Your task to perform on an android device: Open Amazon Image 0: 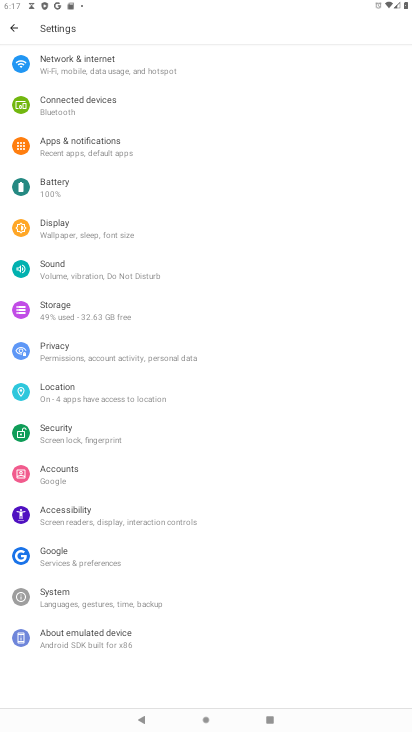
Step 0: press home button
Your task to perform on an android device: Open Amazon Image 1: 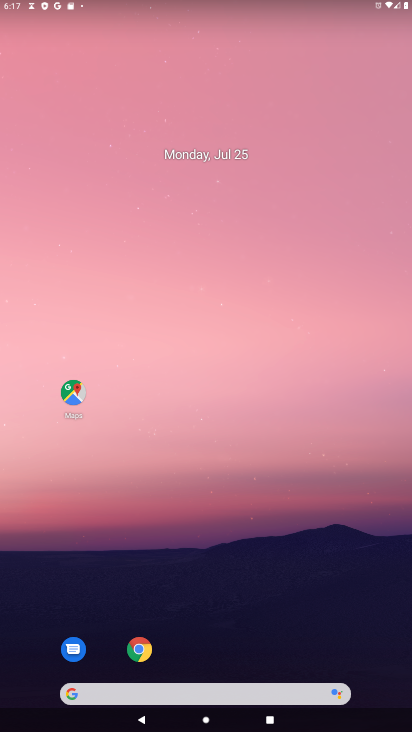
Step 1: drag from (214, 629) to (284, 43)
Your task to perform on an android device: Open Amazon Image 2: 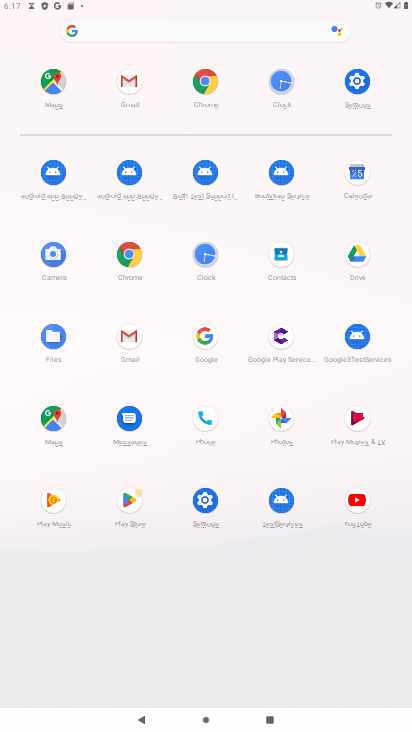
Step 2: click (131, 249)
Your task to perform on an android device: Open Amazon Image 3: 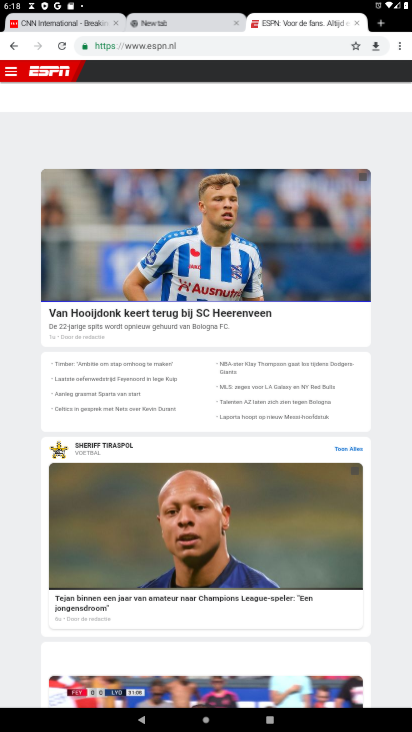
Step 3: click (167, 44)
Your task to perform on an android device: Open Amazon Image 4: 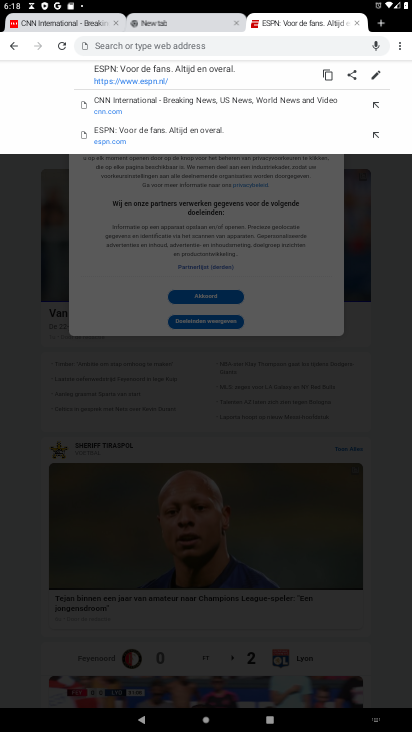
Step 4: type "amzon"
Your task to perform on an android device: Open Amazon Image 5: 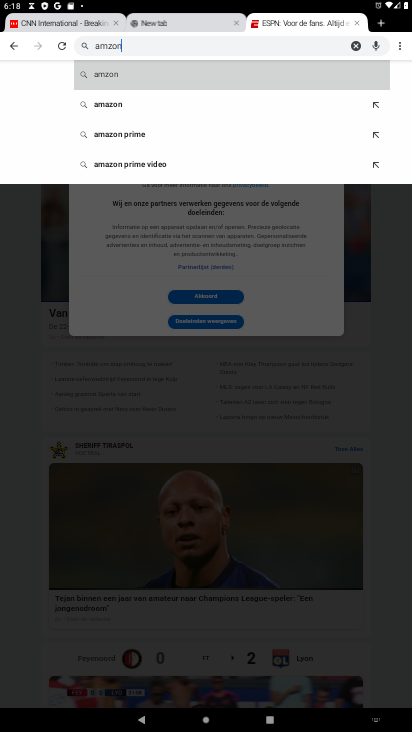
Step 5: click (134, 104)
Your task to perform on an android device: Open Amazon Image 6: 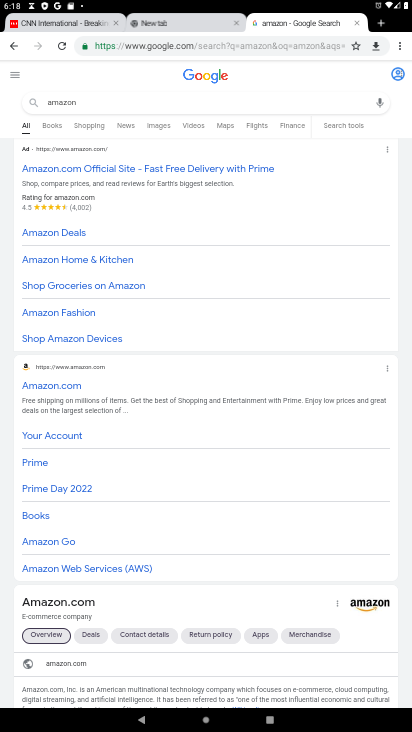
Step 6: task complete